Your task to perform on an android device: Open accessibility settings Image 0: 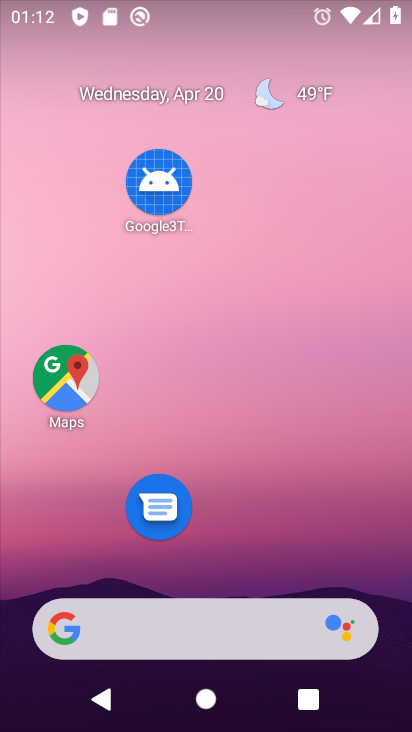
Step 0: drag from (245, 460) to (280, 9)
Your task to perform on an android device: Open accessibility settings Image 1: 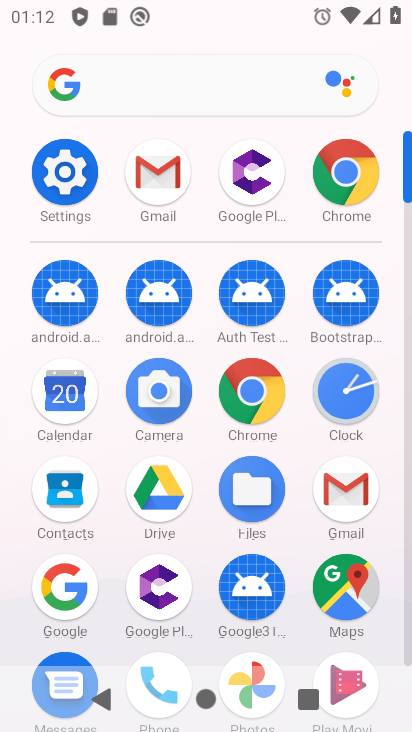
Step 1: click (72, 173)
Your task to perform on an android device: Open accessibility settings Image 2: 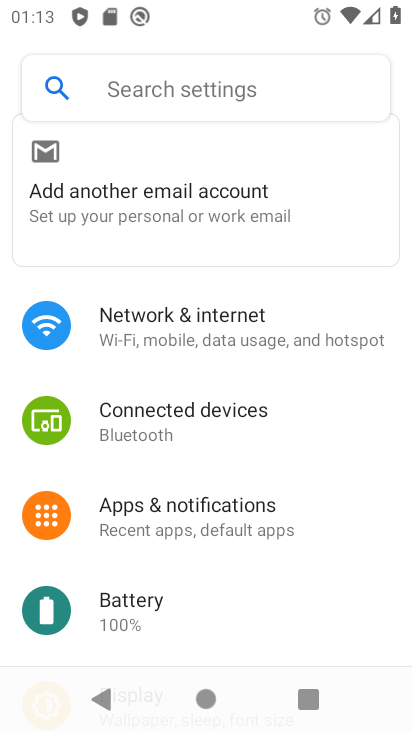
Step 2: drag from (239, 575) to (218, 198)
Your task to perform on an android device: Open accessibility settings Image 3: 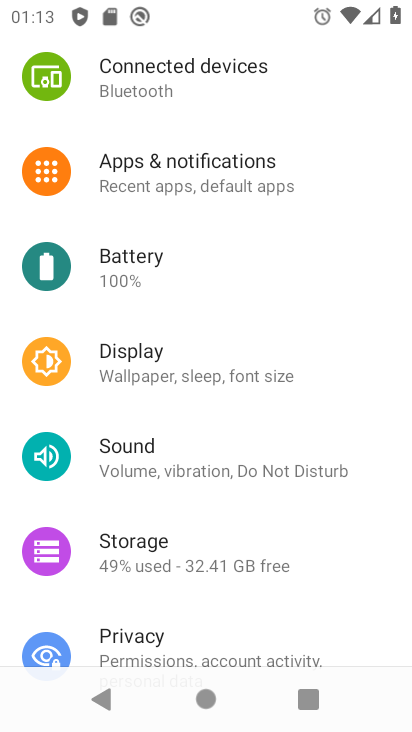
Step 3: drag from (257, 555) to (224, 233)
Your task to perform on an android device: Open accessibility settings Image 4: 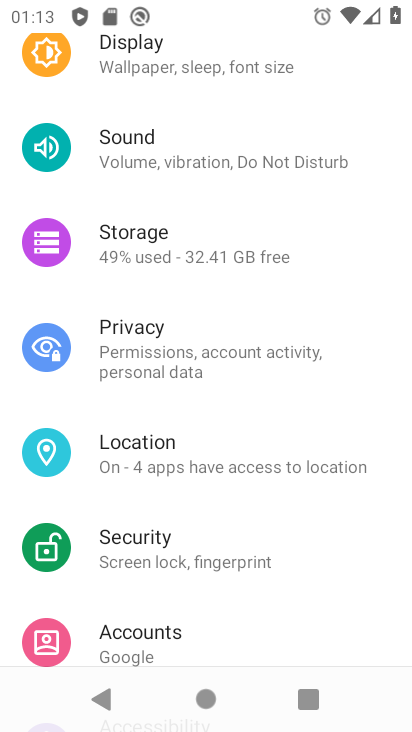
Step 4: drag from (215, 615) to (196, 286)
Your task to perform on an android device: Open accessibility settings Image 5: 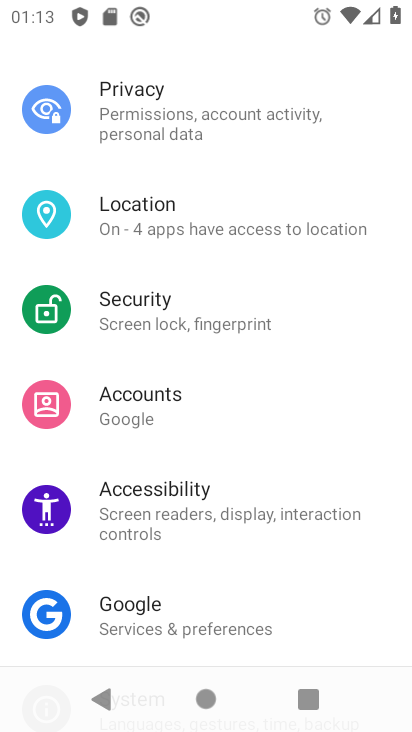
Step 5: click (153, 492)
Your task to perform on an android device: Open accessibility settings Image 6: 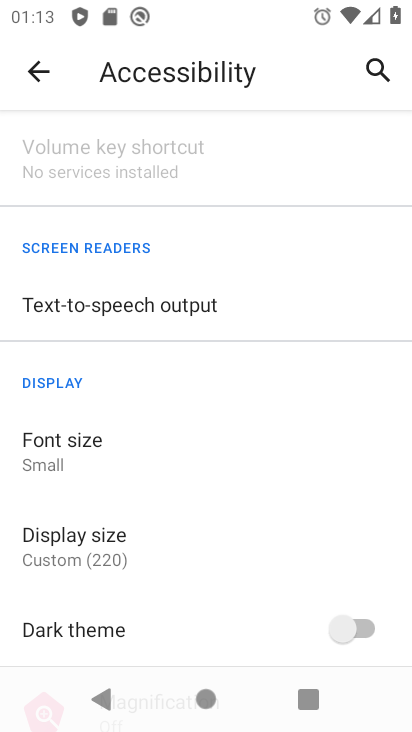
Step 6: task complete